Your task to perform on an android device: Open battery settings Image 0: 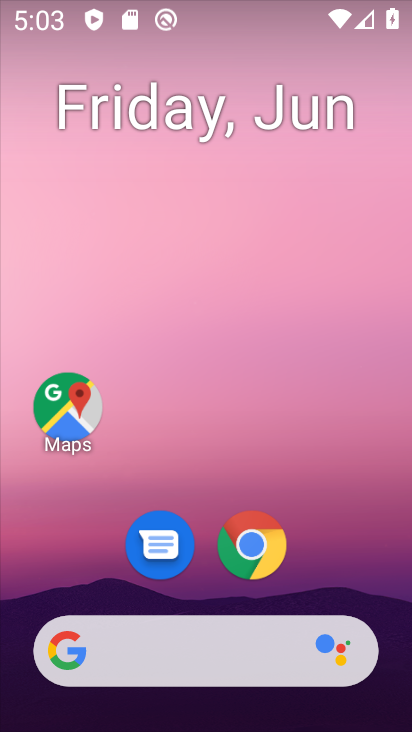
Step 0: drag from (238, 511) to (233, 244)
Your task to perform on an android device: Open battery settings Image 1: 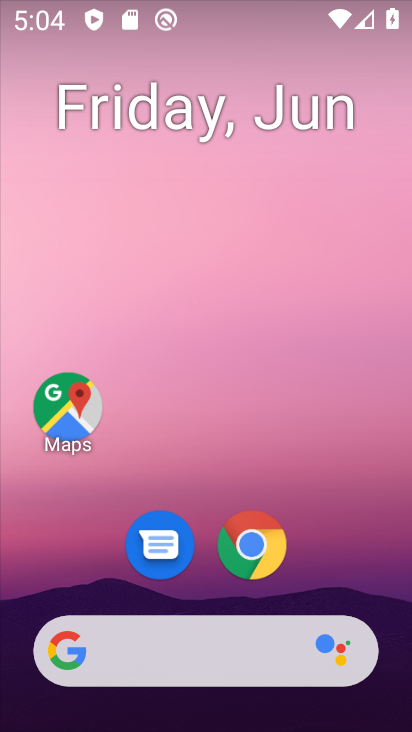
Step 1: drag from (220, 634) to (278, 132)
Your task to perform on an android device: Open battery settings Image 2: 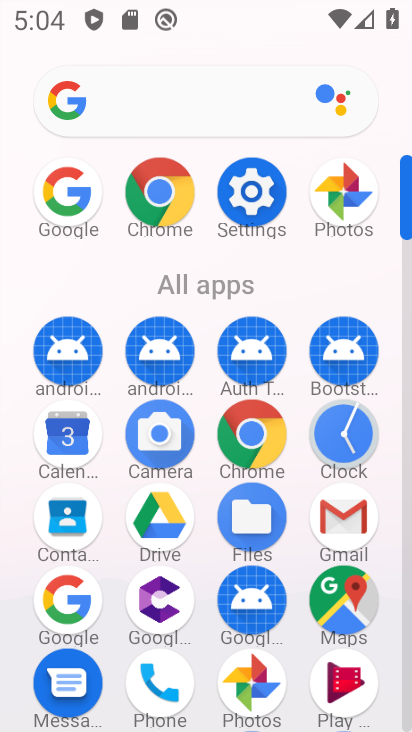
Step 2: click (259, 193)
Your task to perform on an android device: Open battery settings Image 3: 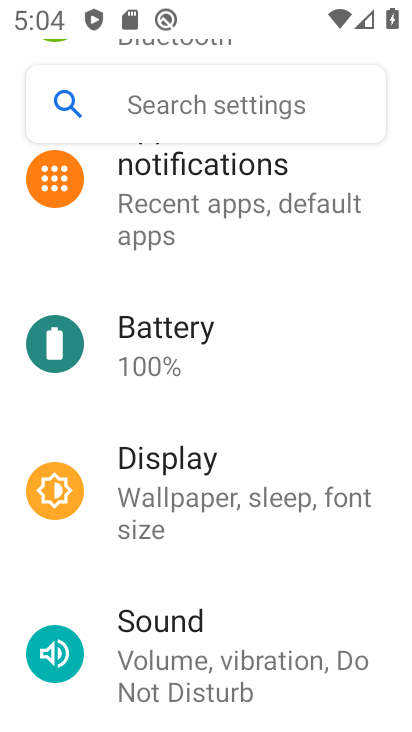
Step 3: click (189, 337)
Your task to perform on an android device: Open battery settings Image 4: 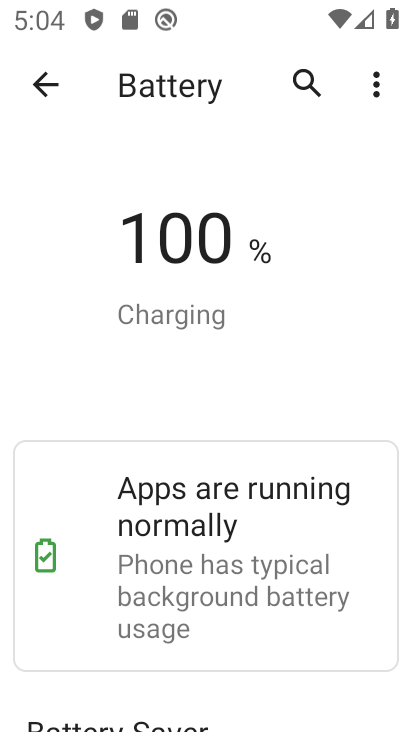
Step 4: click (214, 194)
Your task to perform on an android device: Open battery settings Image 5: 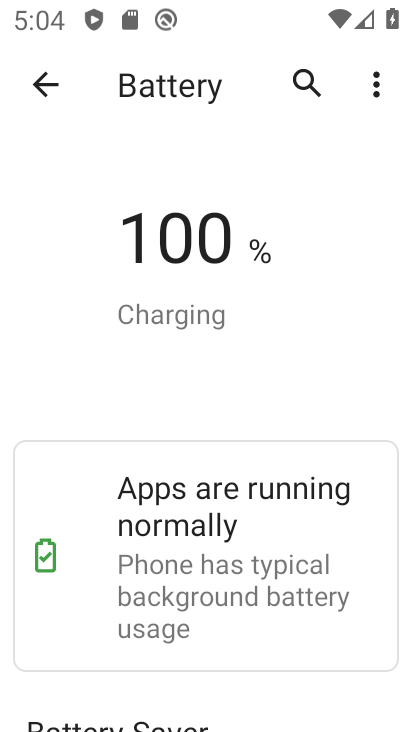
Step 5: task complete